Your task to perform on an android device: When is my next meeting? Image 0: 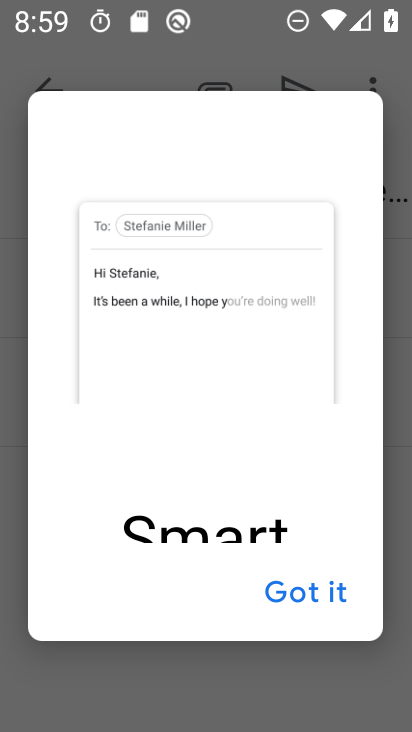
Step 0: press home button
Your task to perform on an android device: When is my next meeting? Image 1: 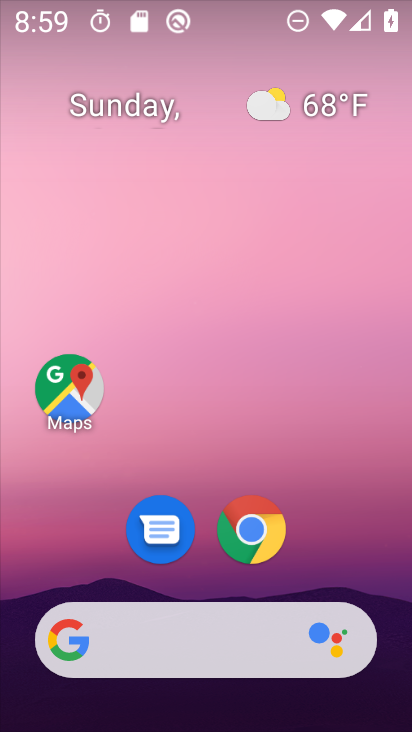
Step 1: drag from (210, 562) to (236, 136)
Your task to perform on an android device: When is my next meeting? Image 2: 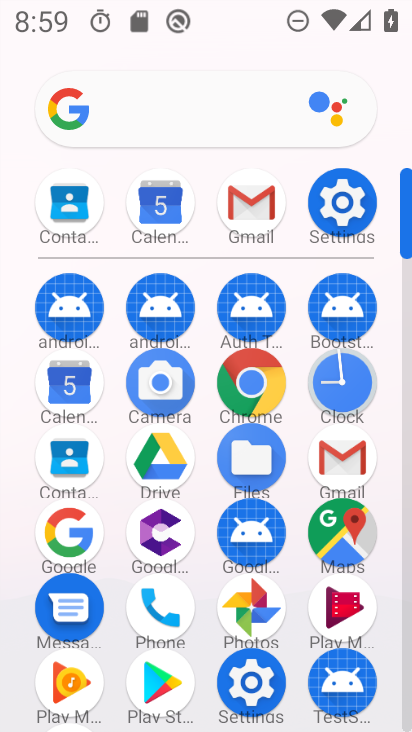
Step 2: click (70, 380)
Your task to perform on an android device: When is my next meeting? Image 3: 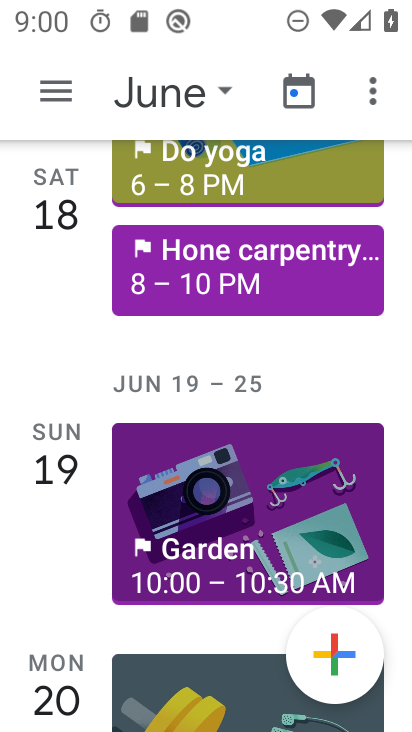
Step 3: drag from (75, 222) to (75, 720)
Your task to perform on an android device: When is my next meeting? Image 4: 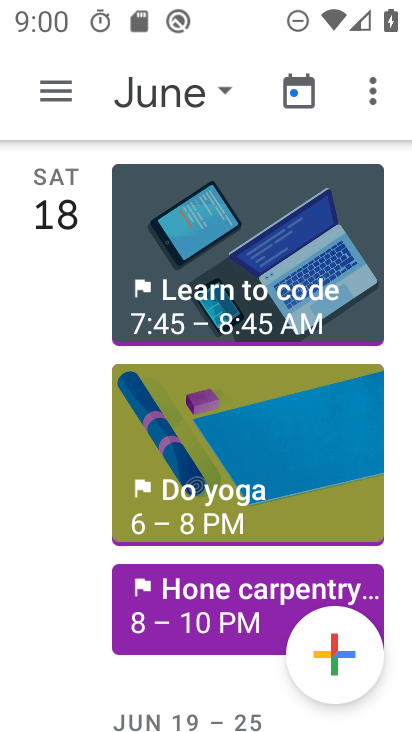
Step 4: click (228, 99)
Your task to perform on an android device: When is my next meeting? Image 5: 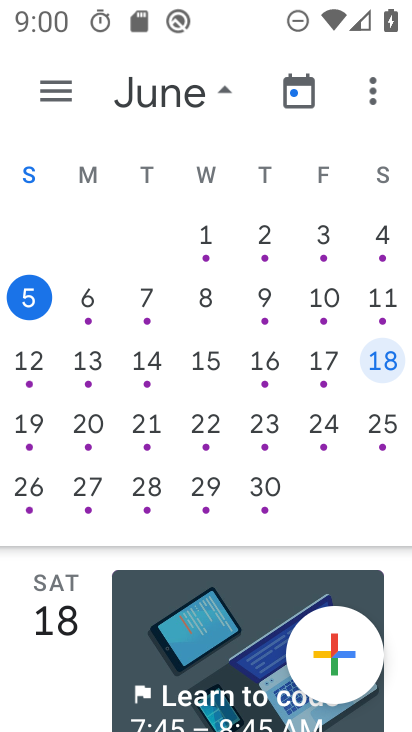
Step 5: click (31, 295)
Your task to perform on an android device: When is my next meeting? Image 6: 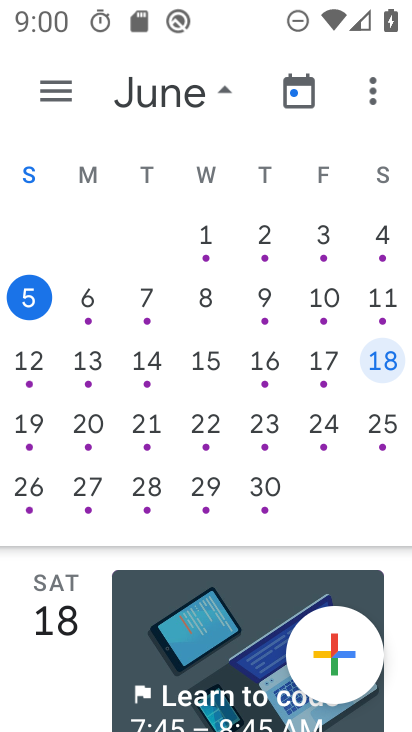
Step 6: click (31, 299)
Your task to perform on an android device: When is my next meeting? Image 7: 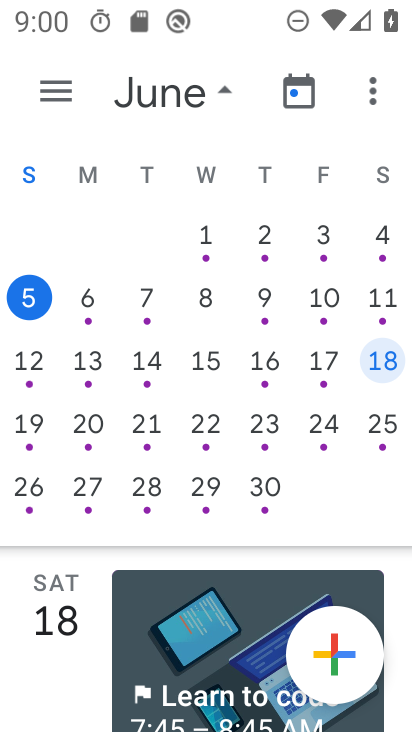
Step 7: click (46, 297)
Your task to perform on an android device: When is my next meeting? Image 8: 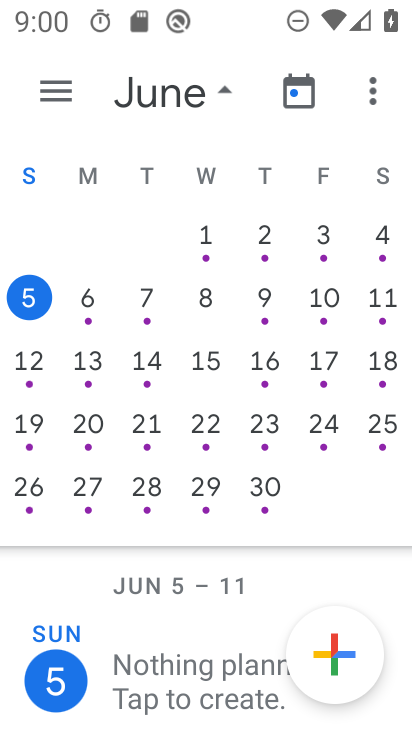
Step 8: click (220, 89)
Your task to perform on an android device: When is my next meeting? Image 9: 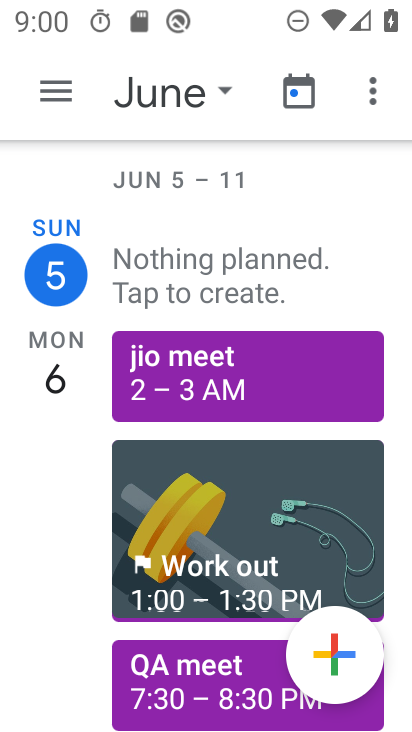
Step 9: task complete